Your task to perform on an android device: Turn off the flashlight Image 0: 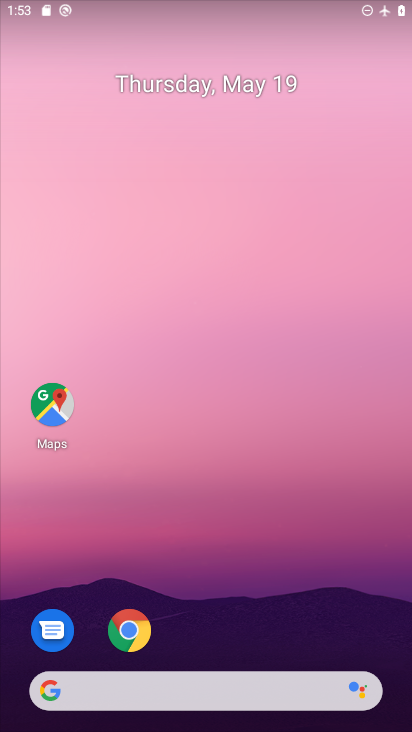
Step 0: drag from (211, 660) to (185, 87)
Your task to perform on an android device: Turn off the flashlight Image 1: 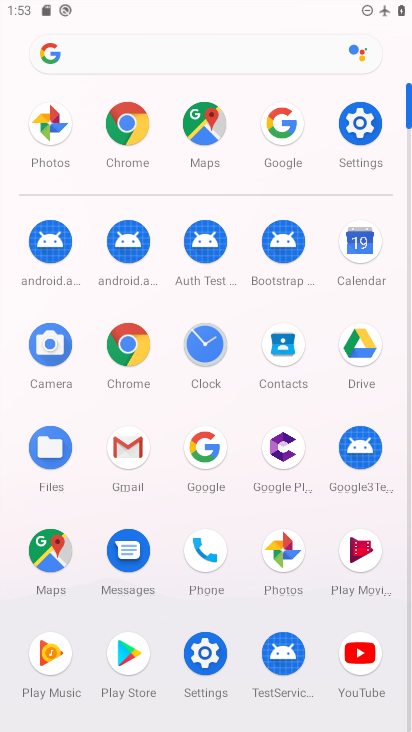
Step 1: click (359, 133)
Your task to perform on an android device: Turn off the flashlight Image 2: 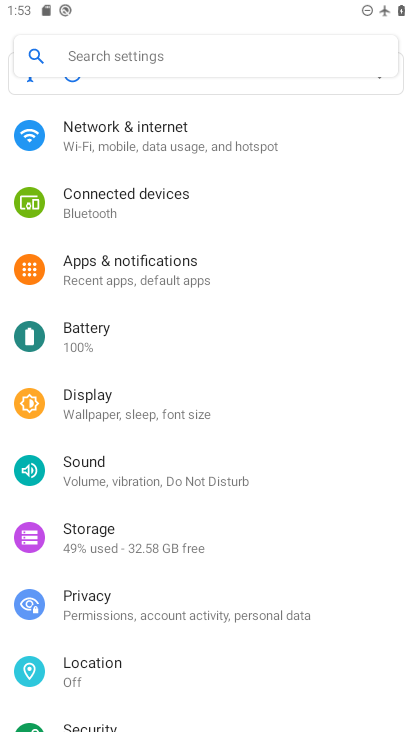
Step 2: task complete